Your task to perform on an android device: Check the weather Image 0: 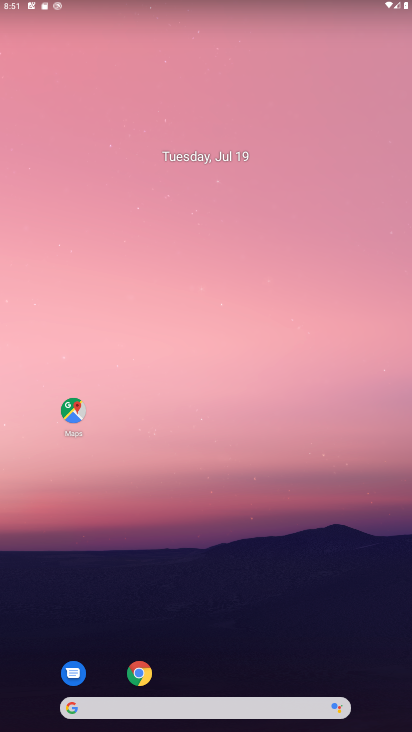
Step 0: click (161, 706)
Your task to perform on an android device: Check the weather Image 1: 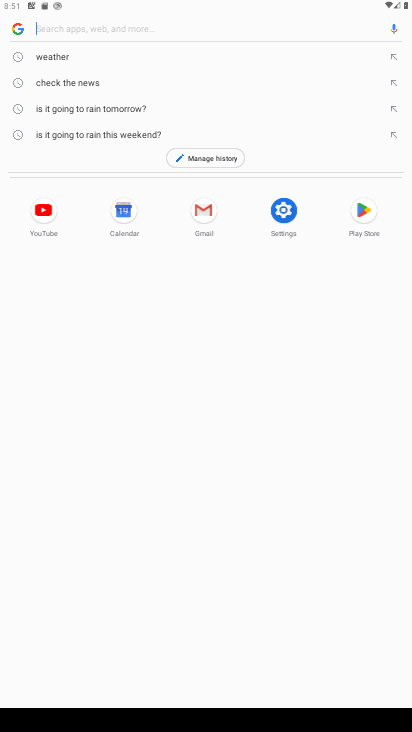
Step 1: click (52, 58)
Your task to perform on an android device: Check the weather Image 2: 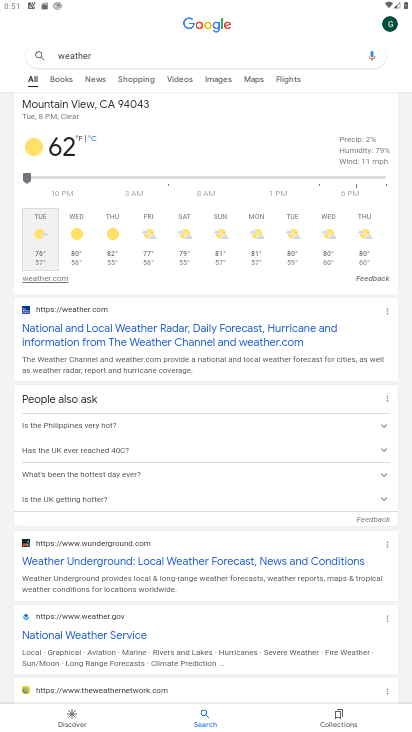
Step 2: task complete